Your task to perform on an android device: search for starred emails in the gmail app Image 0: 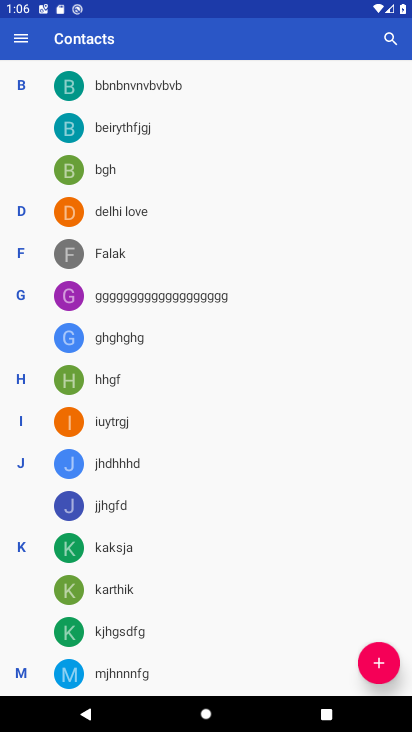
Step 0: press home button
Your task to perform on an android device: search for starred emails in the gmail app Image 1: 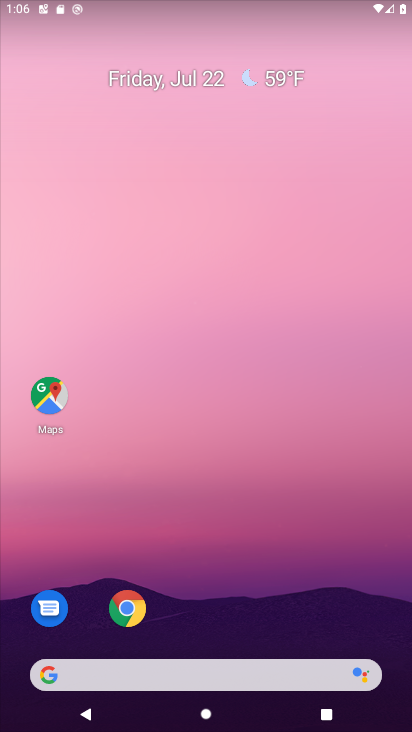
Step 1: drag from (198, 567) to (160, 79)
Your task to perform on an android device: search for starred emails in the gmail app Image 2: 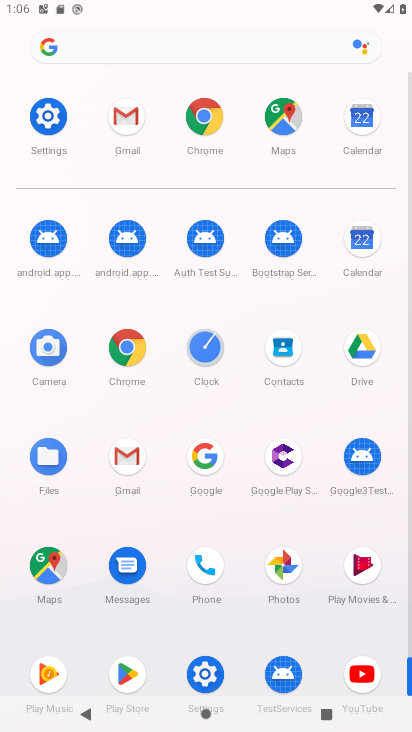
Step 2: click (121, 474)
Your task to perform on an android device: search for starred emails in the gmail app Image 3: 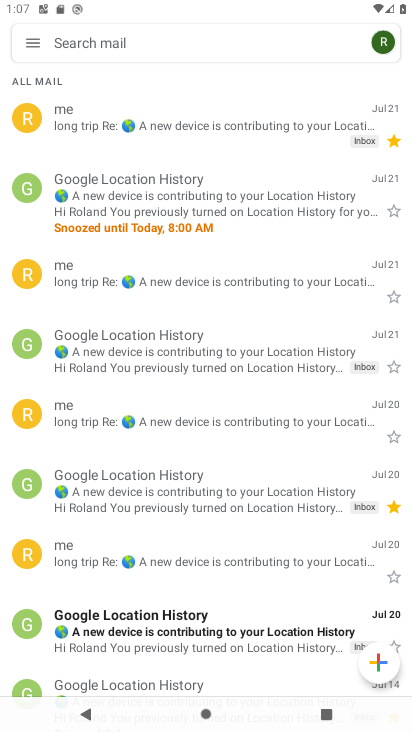
Step 3: click (24, 51)
Your task to perform on an android device: search for starred emails in the gmail app Image 4: 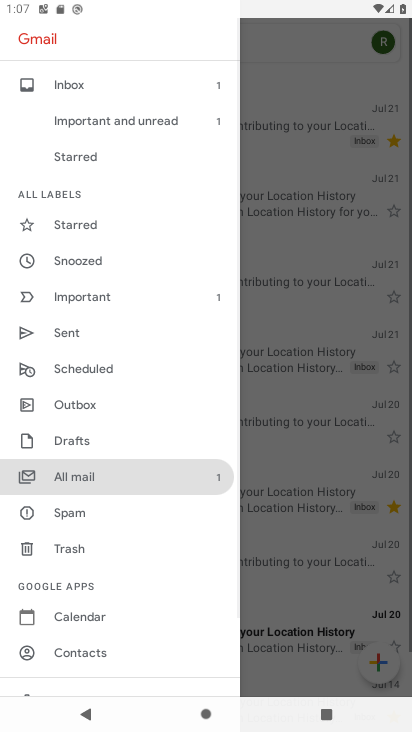
Step 4: click (76, 228)
Your task to perform on an android device: search for starred emails in the gmail app Image 5: 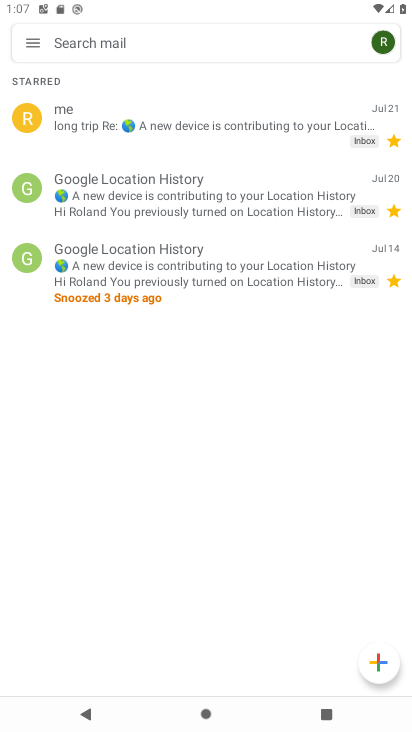
Step 5: task complete